Your task to perform on an android device: What's on my calendar tomorrow? Image 0: 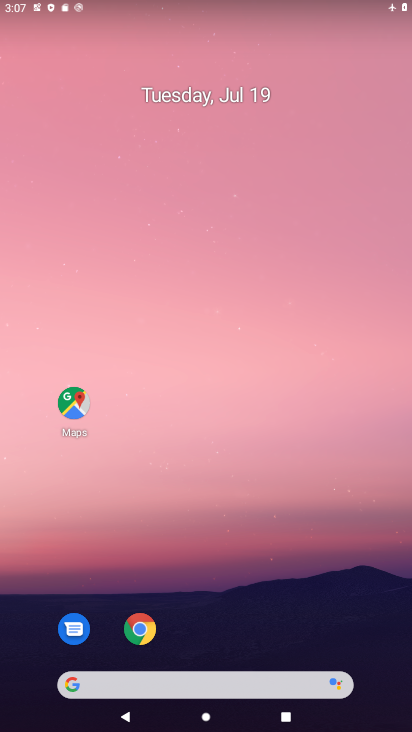
Step 0: drag from (200, 673) to (198, 3)
Your task to perform on an android device: What's on my calendar tomorrow? Image 1: 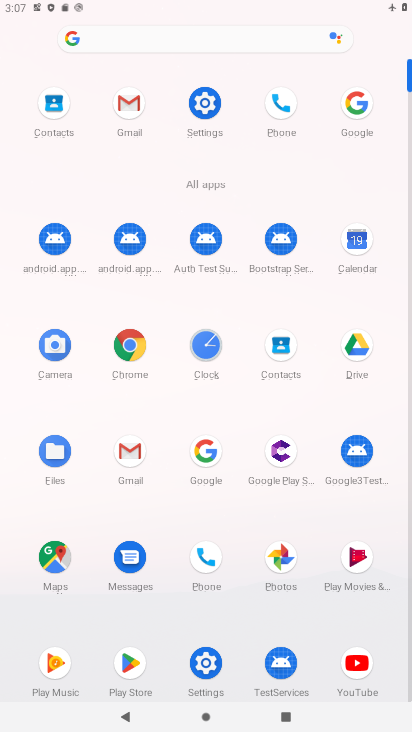
Step 1: click (367, 244)
Your task to perform on an android device: What's on my calendar tomorrow? Image 2: 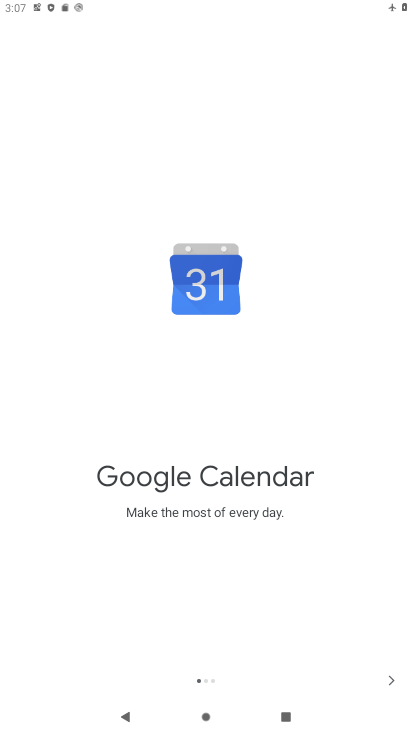
Step 2: click (392, 687)
Your task to perform on an android device: What's on my calendar tomorrow? Image 3: 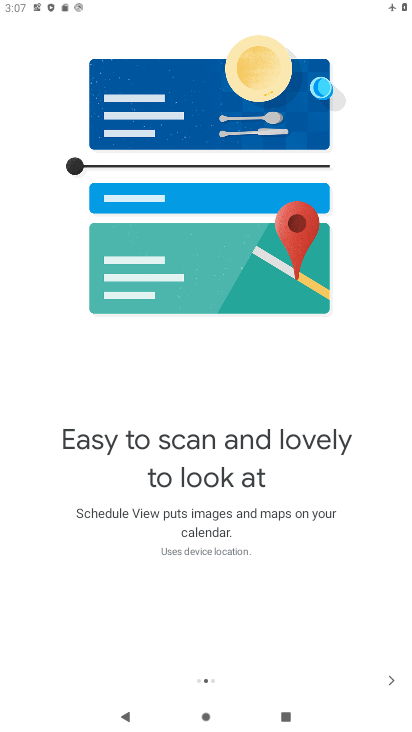
Step 3: click (392, 687)
Your task to perform on an android device: What's on my calendar tomorrow? Image 4: 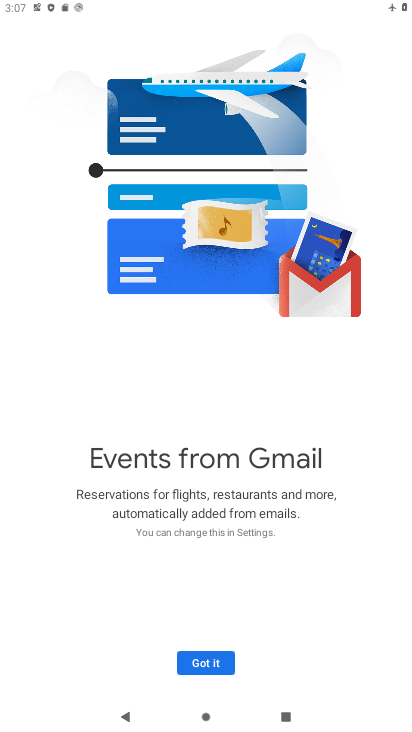
Step 4: click (217, 668)
Your task to perform on an android device: What's on my calendar tomorrow? Image 5: 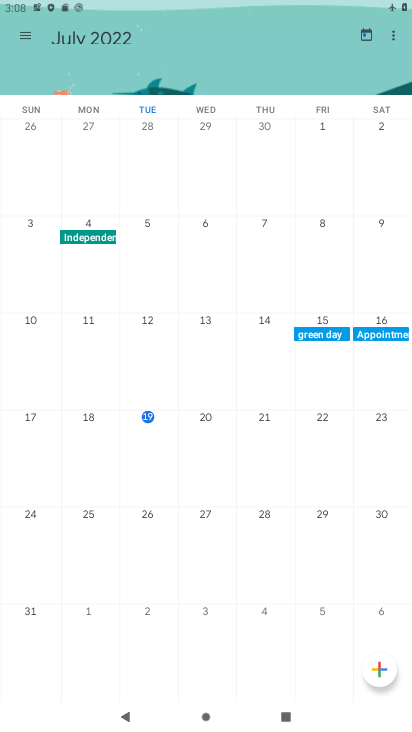
Step 5: click (27, 32)
Your task to perform on an android device: What's on my calendar tomorrow? Image 6: 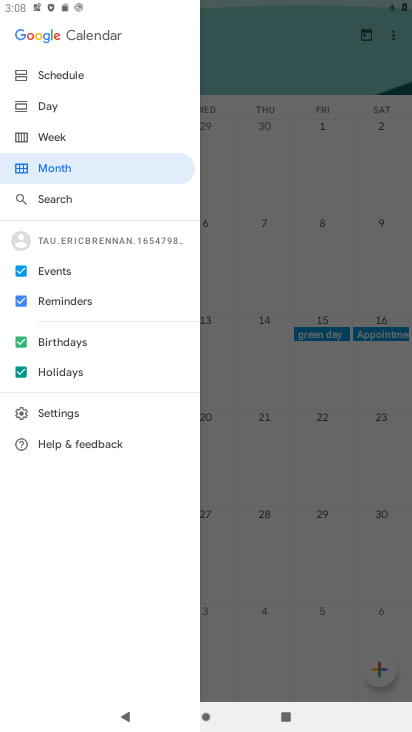
Step 6: click (56, 77)
Your task to perform on an android device: What's on my calendar tomorrow? Image 7: 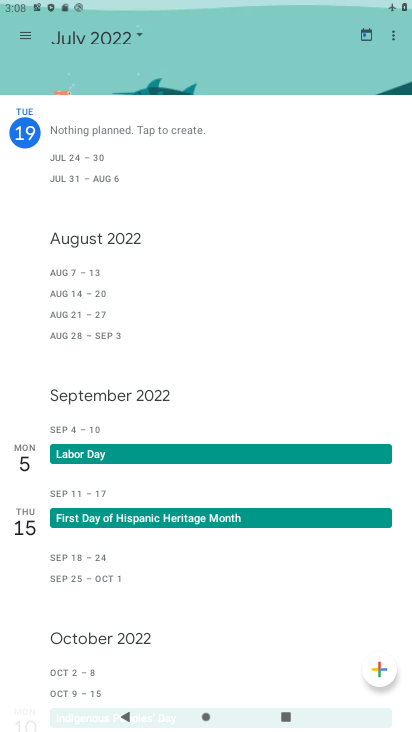
Step 7: task complete